Your task to perform on an android device: change the clock style Image 0: 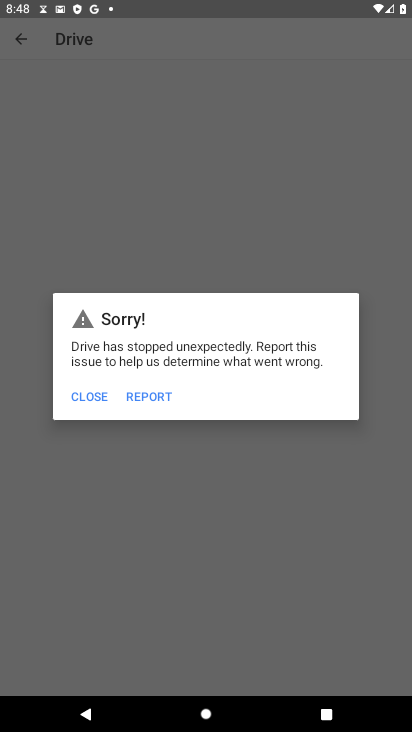
Step 0: drag from (160, 644) to (294, 22)
Your task to perform on an android device: change the clock style Image 1: 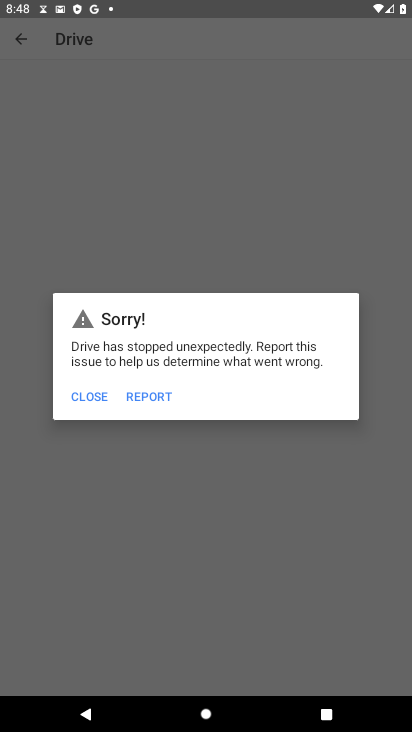
Step 1: press home button
Your task to perform on an android device: change the clock style Image 2: 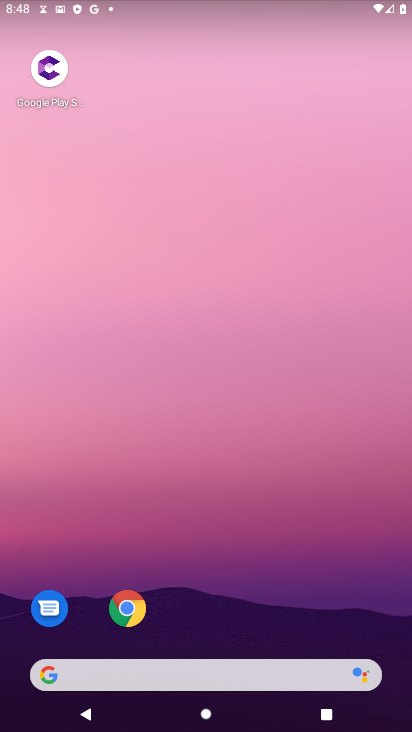
Step 2: drag from (194, 671) to (298, 94)
Your task to perform on an android device: change the clock style Image 3: 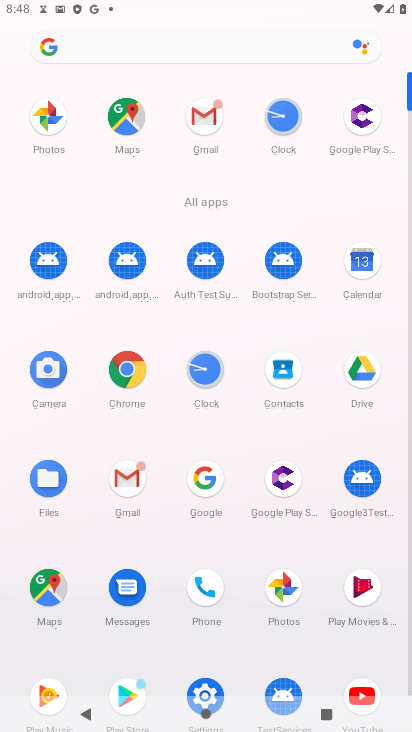
Step 3: click (195, 376)
Your task to perform on an android device: change the clock style Image 4: 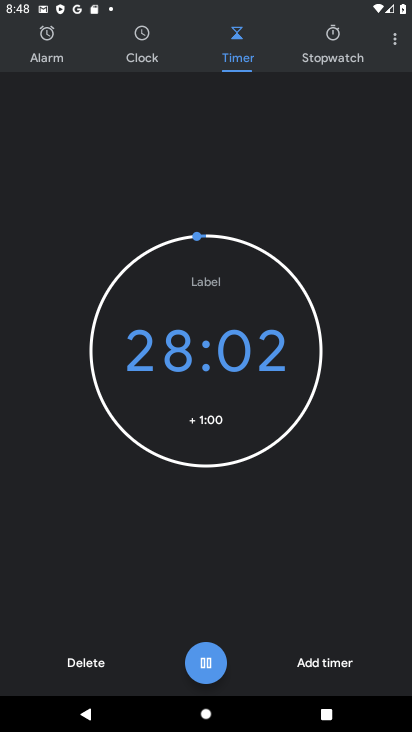
Step 4: click (390, 37)
Your task to perform on an android device: change the clock style Image 5: 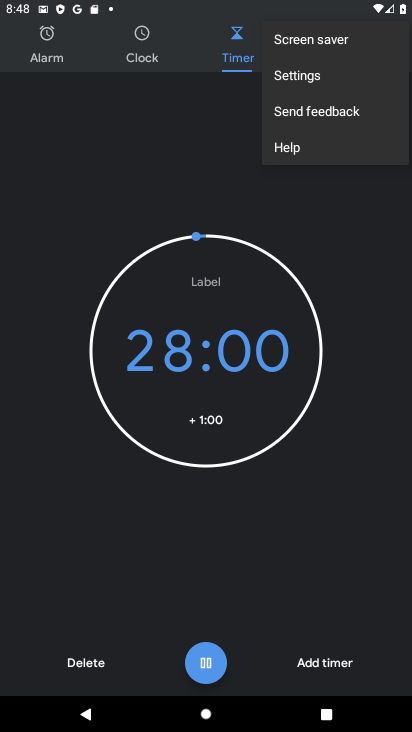
Step 5: click (369, 76)
Your task to perform on an android device: change the clock style Image 6: 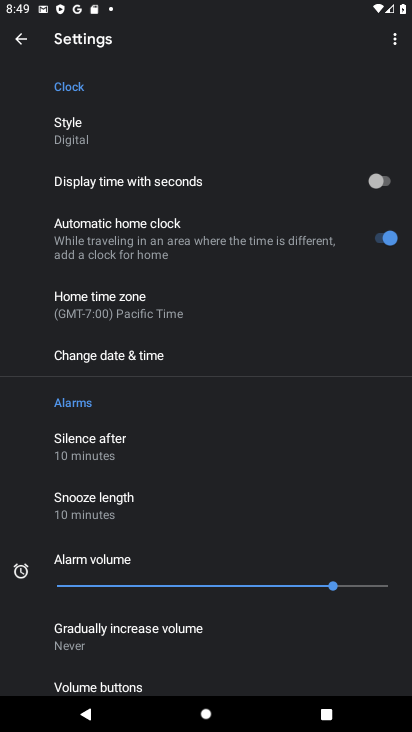
Step 6: click (212, 140)
Your task to perform on an android device: change the clock style Image 7: 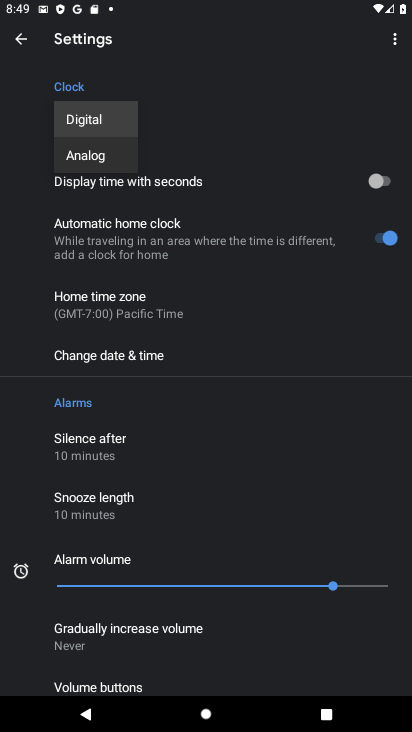
Step 7: click (116, 154)
Your task to perform on an android device: change the clock style Image 8: 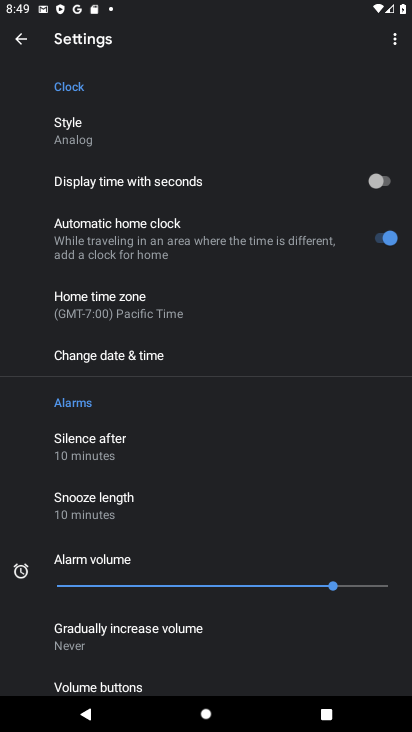
Step 8: task complete